Your task to perform on an android device: Go to Wikipedia Image 0: 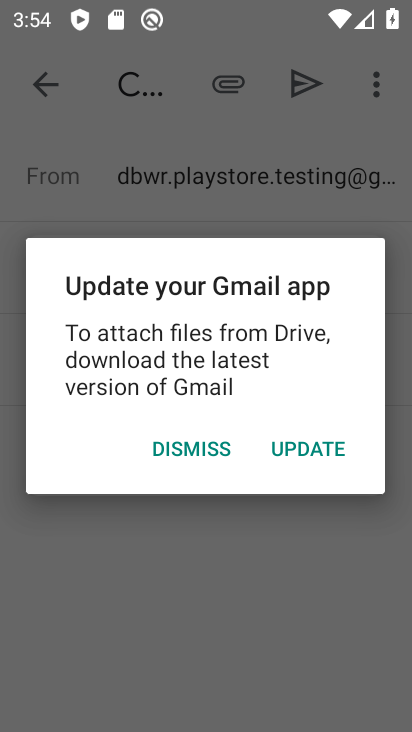
Step 0: press home button
Your task to perform on an android device: Go to Wikipedia Image 1: 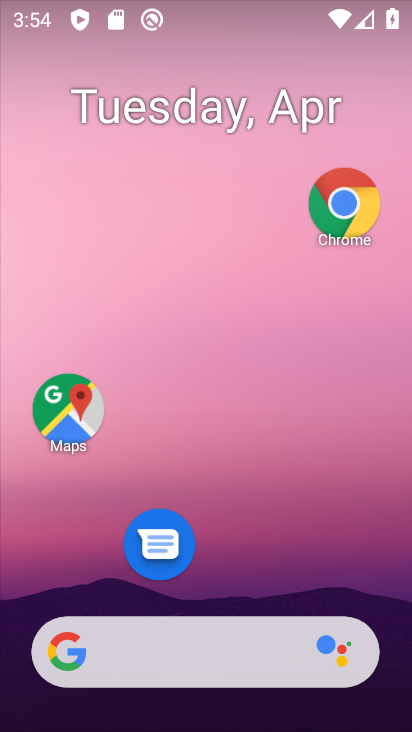
Step 1: drag from (238, 585) to (292, 3)
Your task to perform on an android device: Go to Wikipedia Image 2: 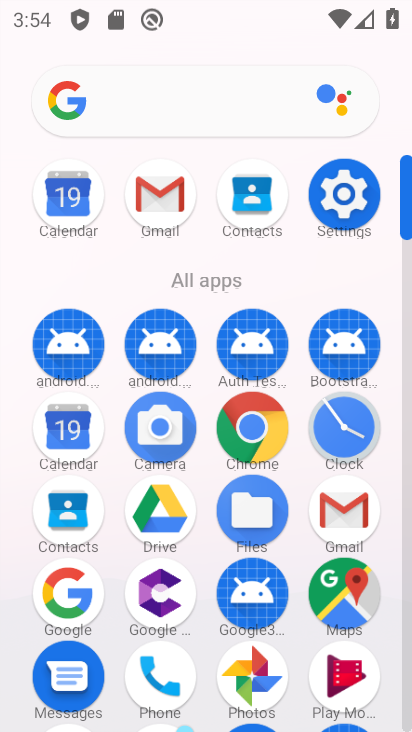
Step 2: click (267, 439)
Your task to perform on an android device: Go to Wikipedia Image 3: 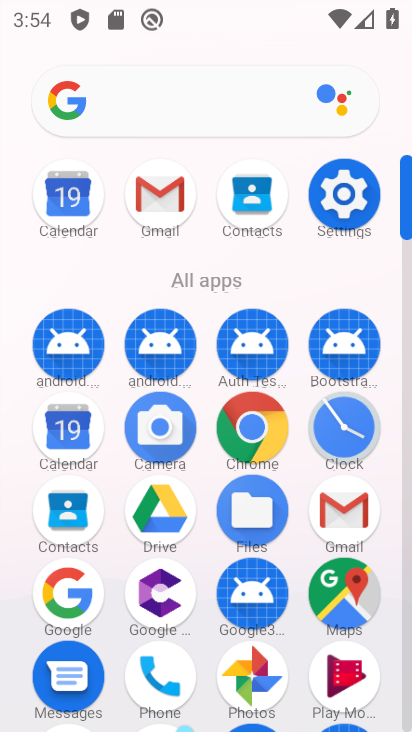
Step 3: click (244, 424)
Your task to perform on an android device: Go to Wikipedia Image 4: 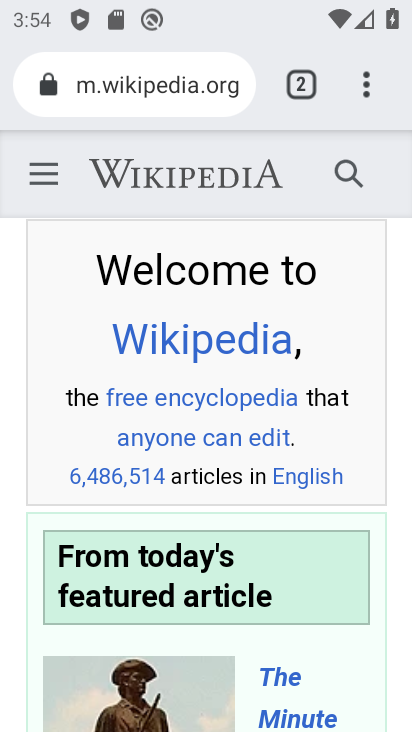
Step 4: task complete